Your task to perform on an android device: toggle airplane mode Image 0: 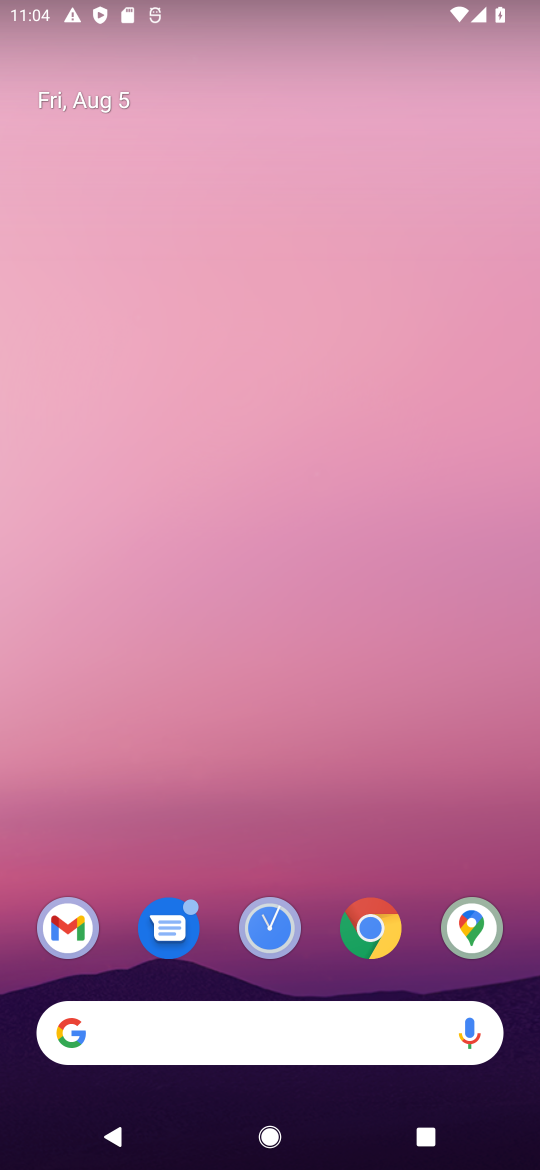
Step 0: drag from (324, 1002) to (260, 15)
Your task to perform on an android device: toggle airplane mode Image 1: 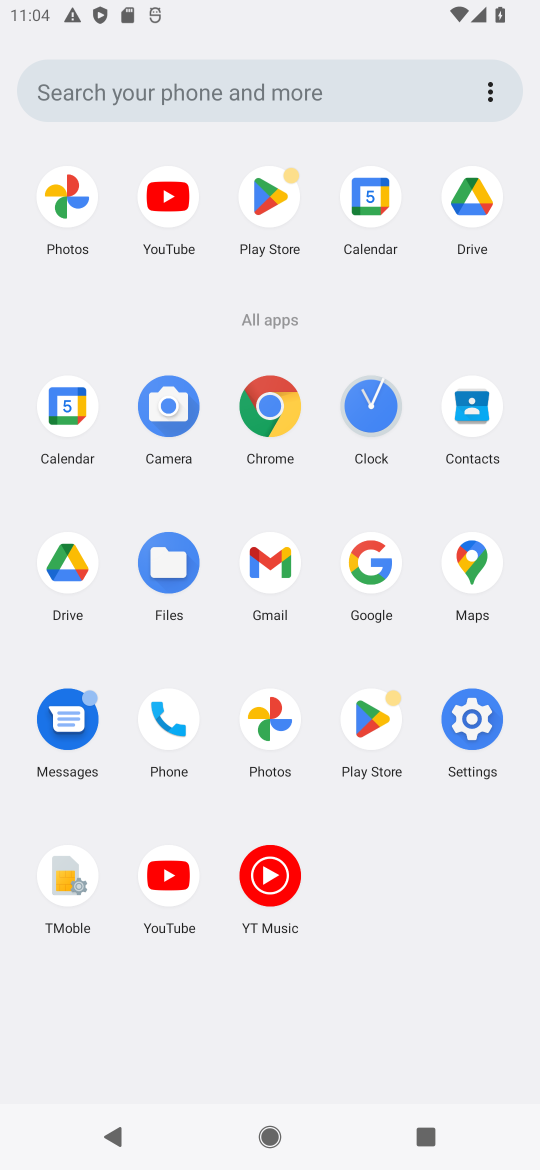
Step 1: click (475, 741)
Your task to perform on an android device: toggle airplane mode Image 2: 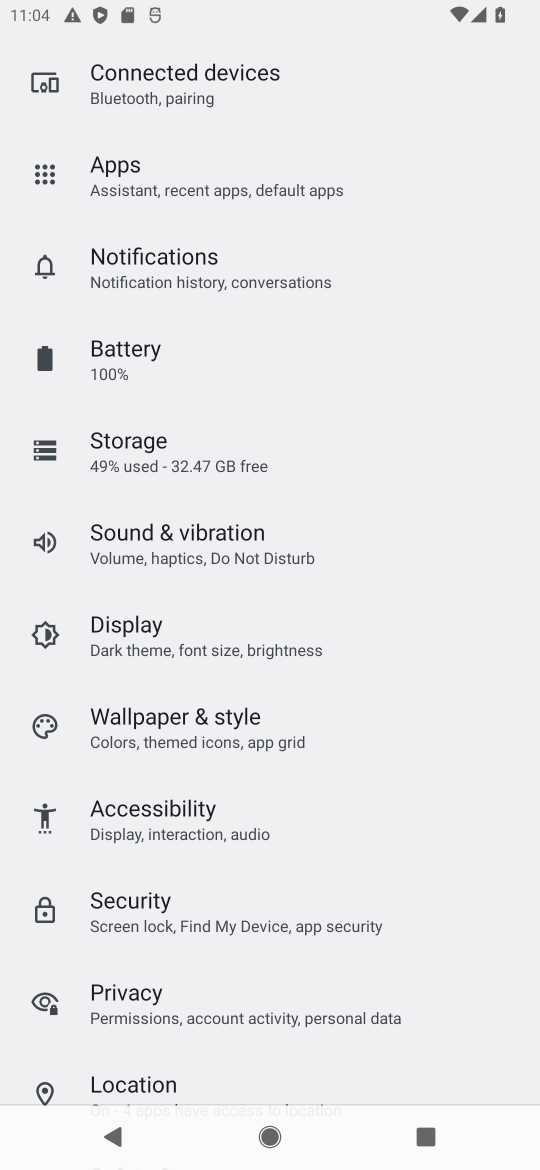
Step 2: drag from (405, 298) to (341, 934)
Your task to perform on an android device: toggle airplane mode Image 3: 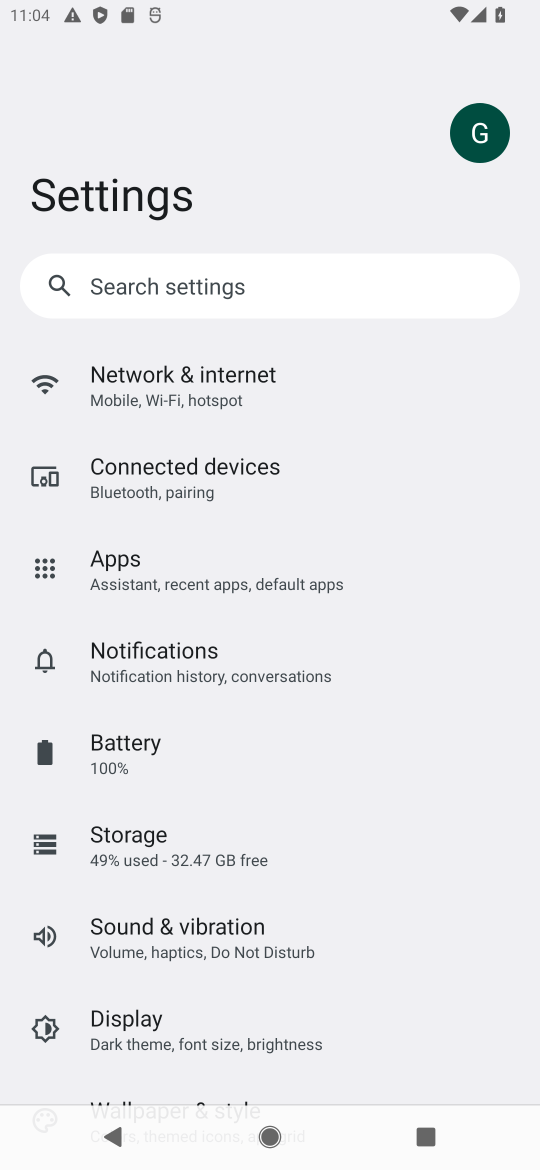
Step 3: click (203, 407)
Your task to perform on an android device: toggle airplane mode Image 4: 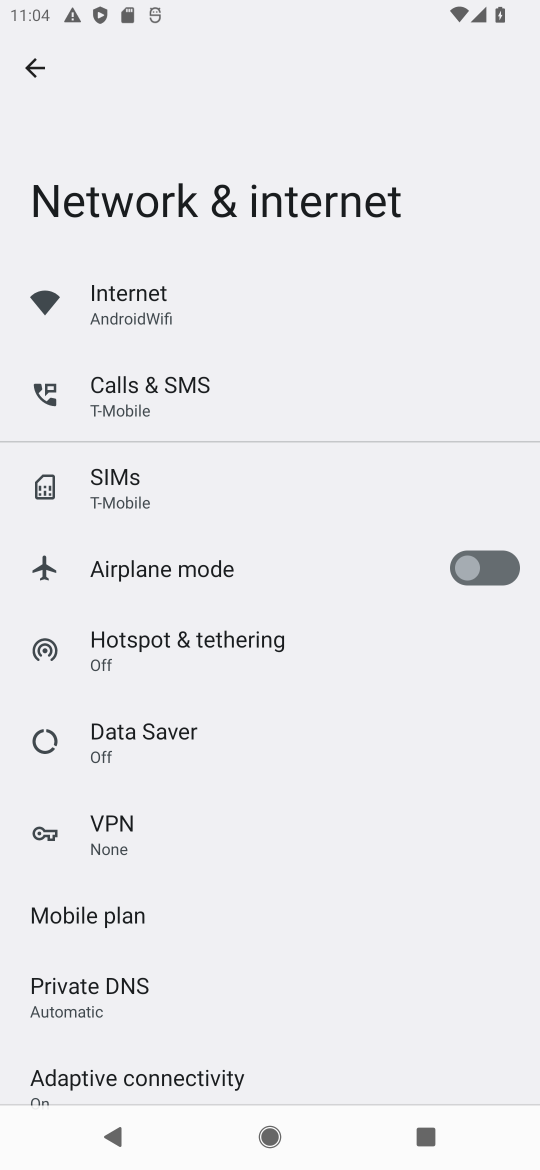
Step 4: click (453, 552)
Your task to perform on an android device: toggle airplane mode Image 5: 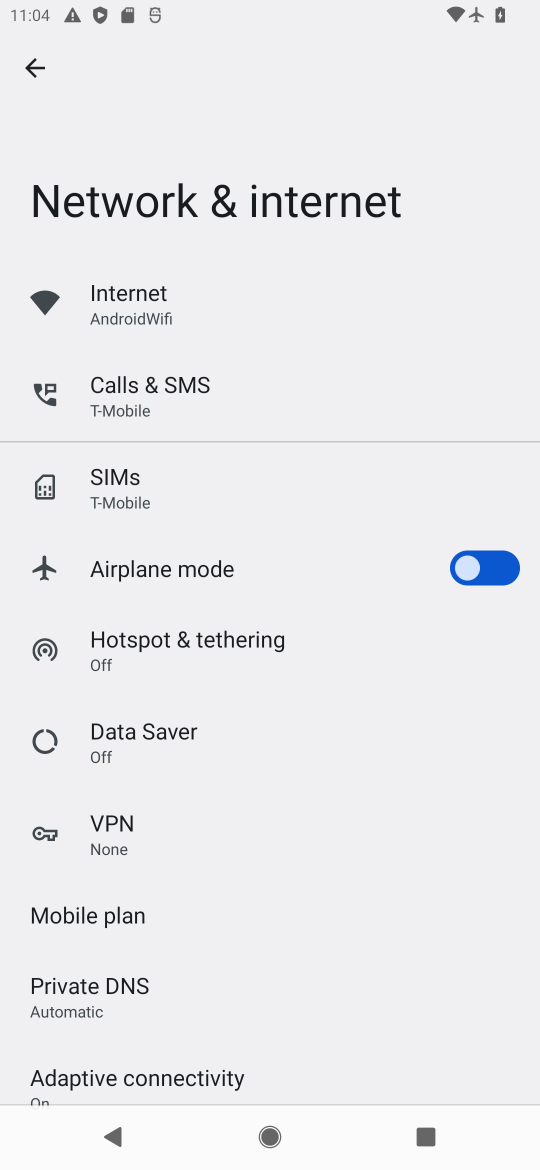
Step 5: task complete